Your task to perform on an android device: check battery use Image 0: 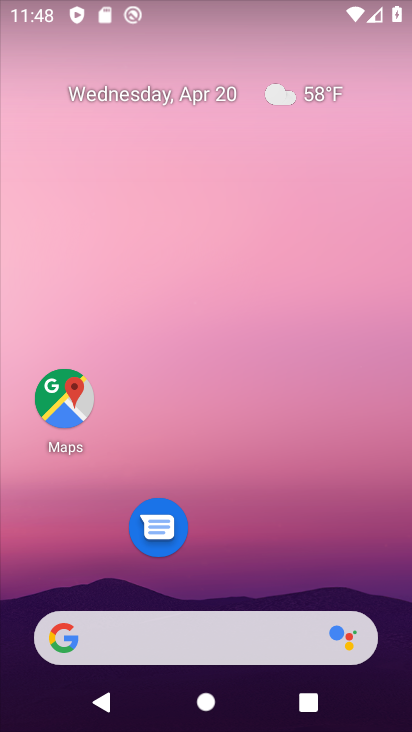
Step 0: click (206, 160)
Your task to perform on an android device: check battery use Image 1: 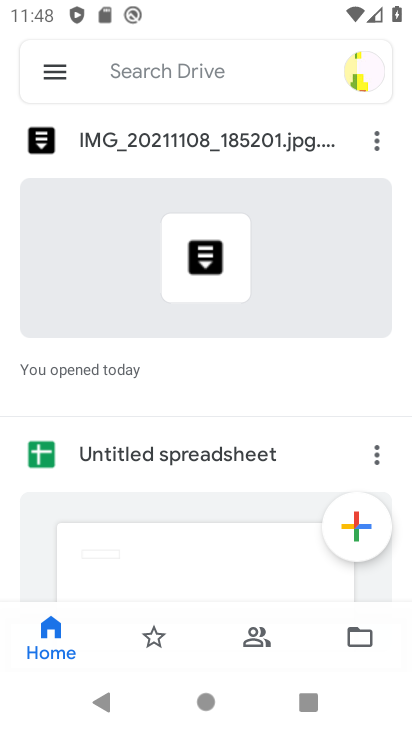
Step 1: press home button
Your task to perform on an android device: check battery use Image 2: 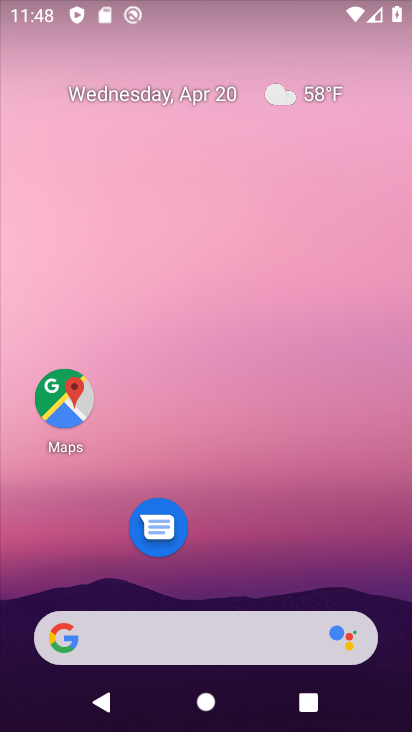
Step 2: drag from (220, 681) to (185, 187)
Your task to perform on an android device: check battery use Image 3: 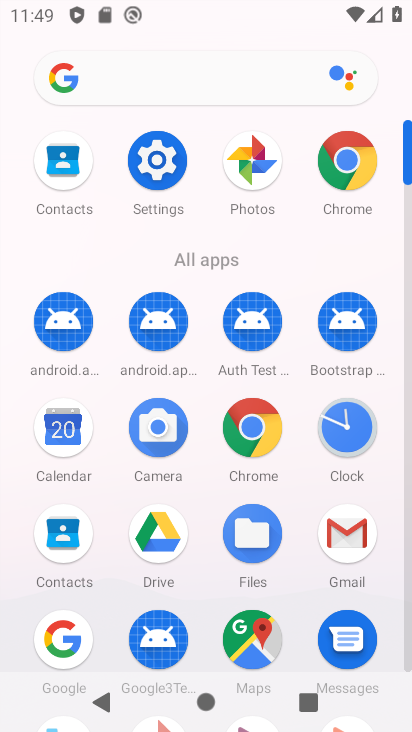
Step 3: click (154, 159)
Your task to perform on an android device: check battery use Image 4: 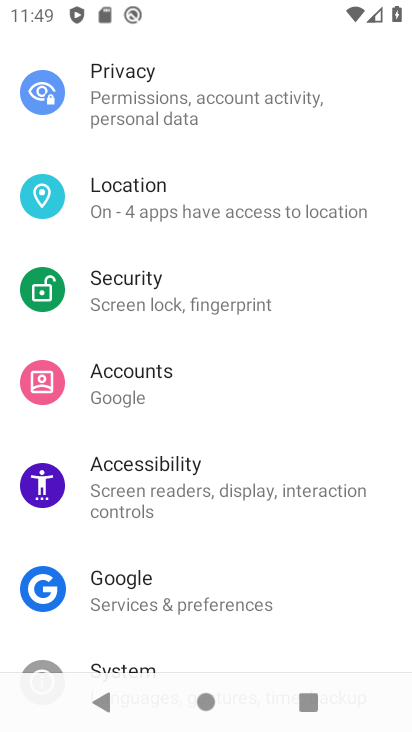
Step 4: drag from (197, 152) to (243, 494)
Your task to perform on an android device: check battery use Image 5: 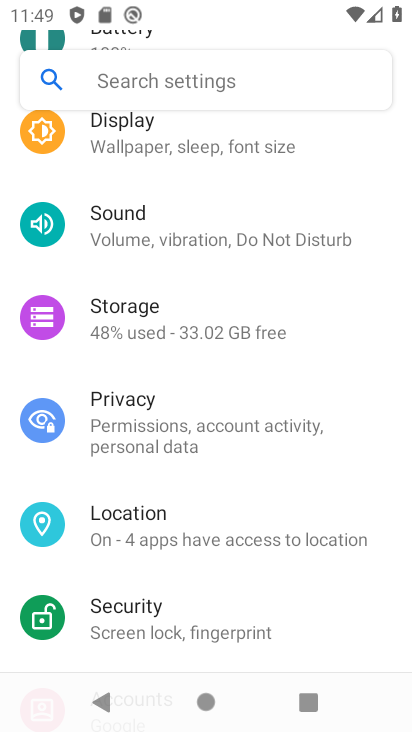
Step 5: drag from (182, 174) to (205, 493)
Your task to perform on an android device: check battery use Image 6: 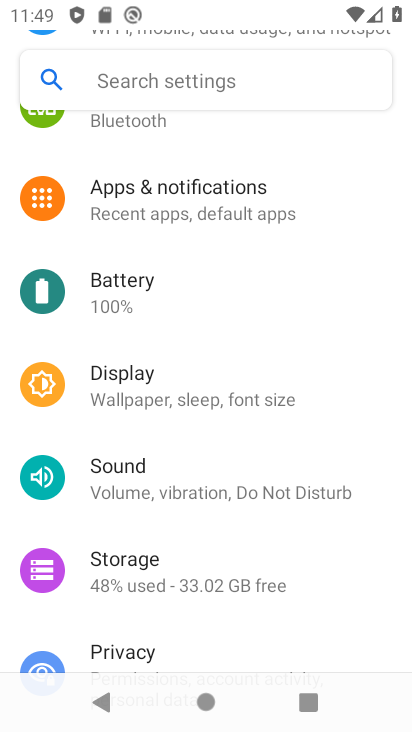
Step 6: click (109, 283)
Your task to perform on an android device: check battery use Image 7: 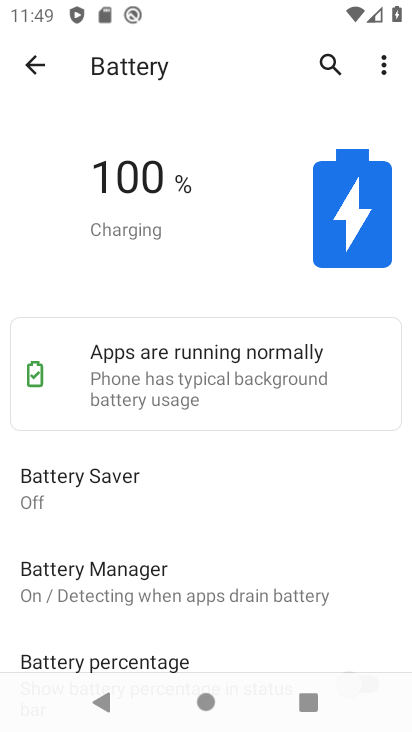
Step 7: click (384, 70)
Your task to perform on an android device: check battery use Image 8: 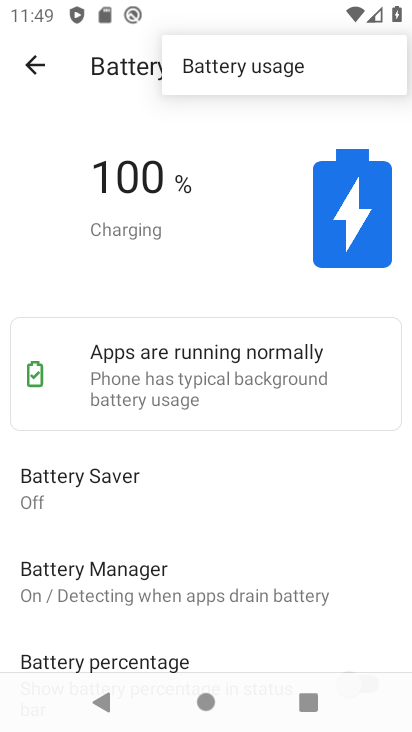
Step 8: click (247, 67)
Your task to perform on an android device: check battery use Image 9: 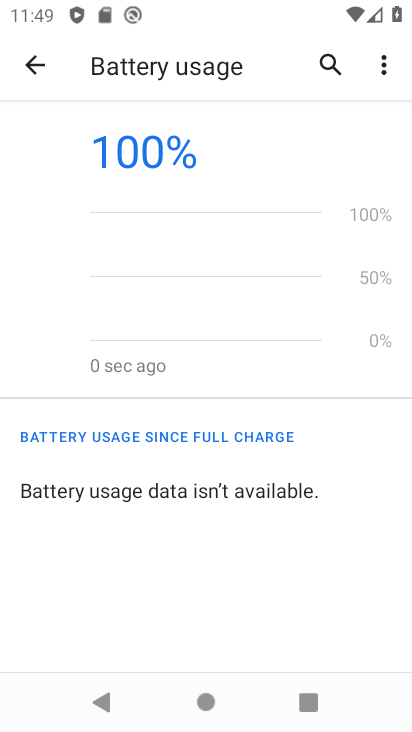
Step 9: task complete